Your task to perform on an android device: Search for seafood restaurants on Google Maps Image 0: 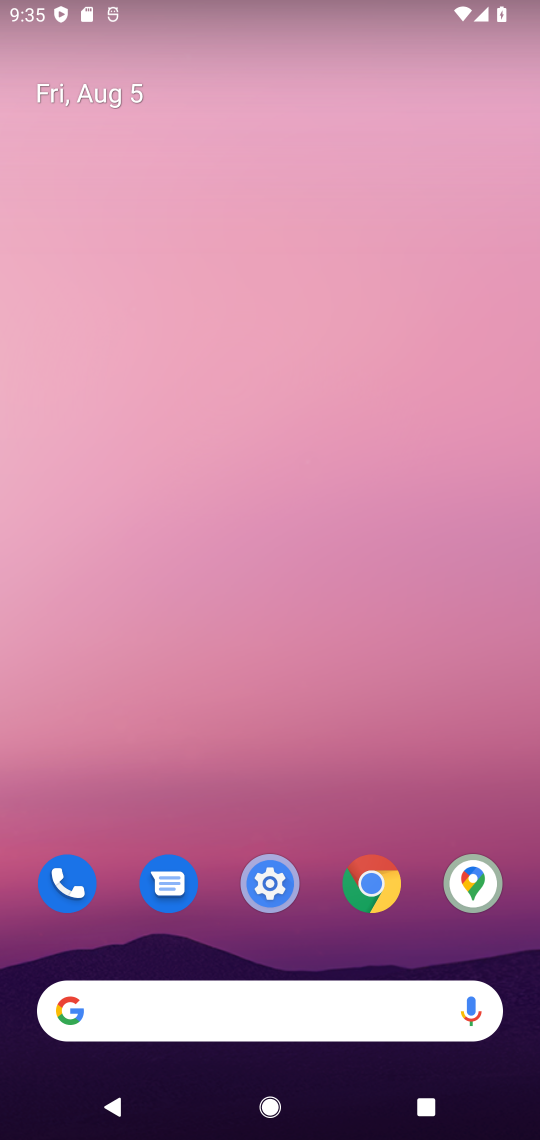
Step 0: click (460, 884)
Your task to perform on an android device: Search for seafood restaurants on Google Maps Image 1: 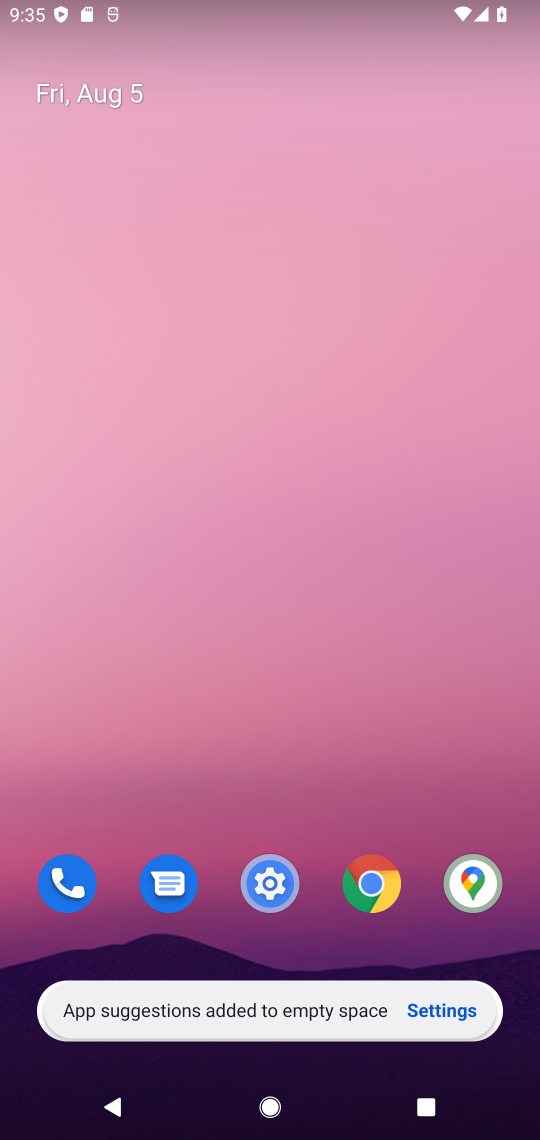
Step 1: click (498, 889)
Your task to perform on an android device: Search for seafood restaurants on Google Maps Image 2: 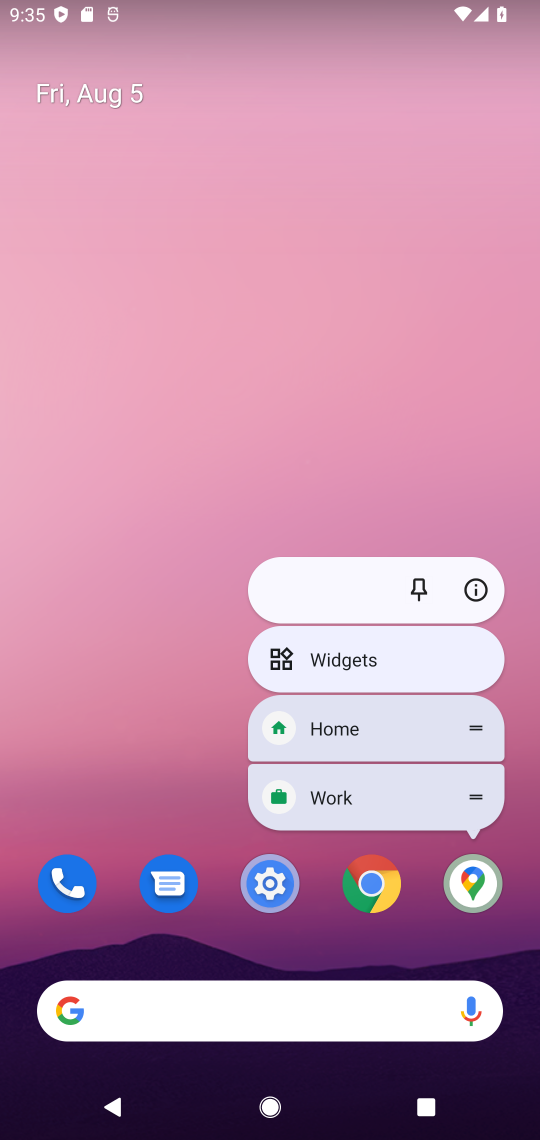
Step 2: click (464, 878)
Your task to perform on an android device: Search for seafood restaurants on Google Maps Image 3: 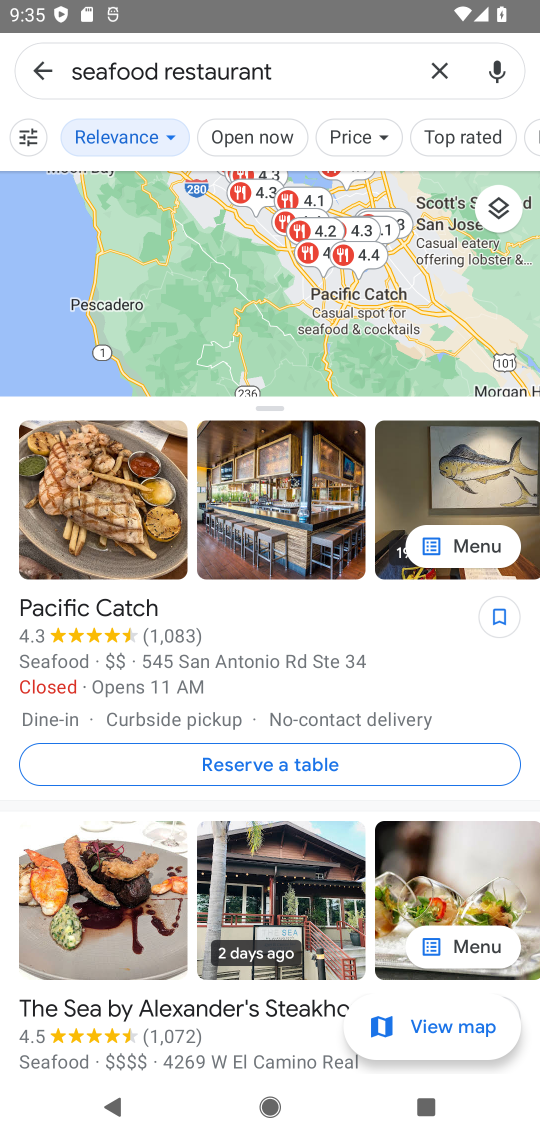
Step 3: task complete